Your task to perform on an android device: Open Chrome and go to the settings page Image 0: 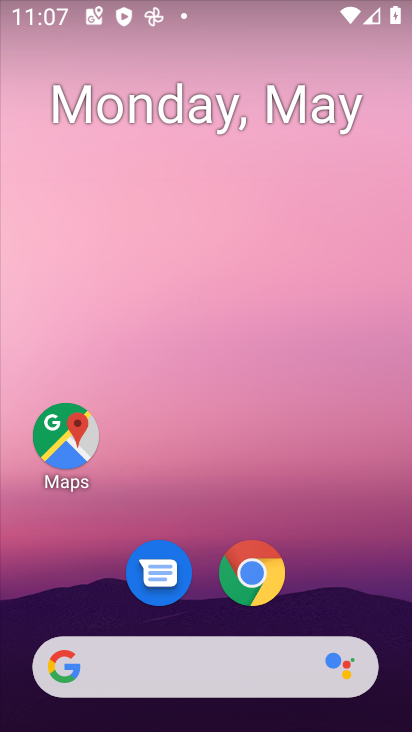
Step 0: click (266, 580)
Your task to perform on an android device: Open Chrome and go to the settings page Image 1: 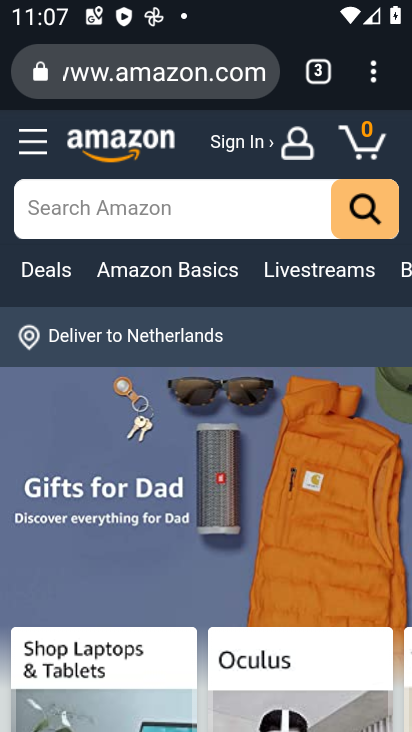
Step 1: click (380, 81)
Your task to perform on an android device: Open Chrome and go to the settings page Image 2: 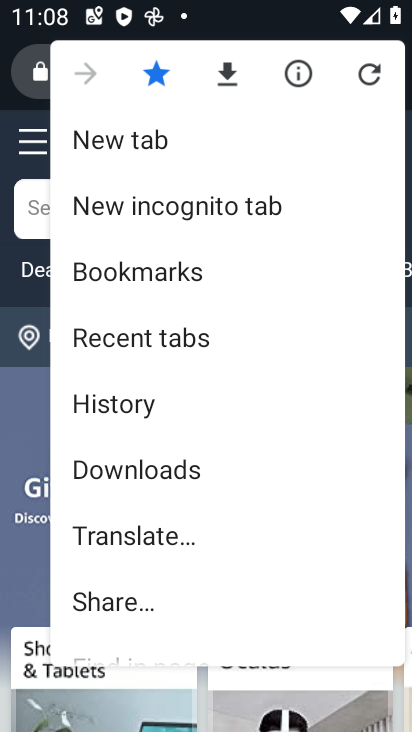
Step 2: drag from (268, 578) to (281, 303)
Your task to perform on an android device: Open Chrome and go to the settings page Image 3: 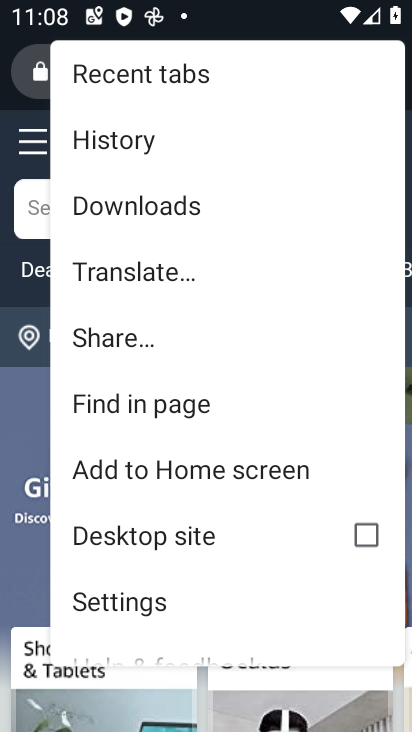
Step 3: click (187, 587)
Your task to perform on an android device: Open Chrome and go to the settings page Image 4: 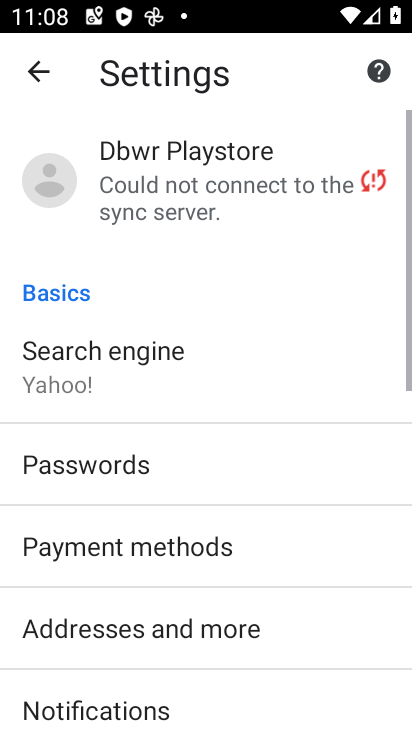
Step 4: task complete